Your task to perform on an android device: turn on showing notifications on the lock screen Image 0: 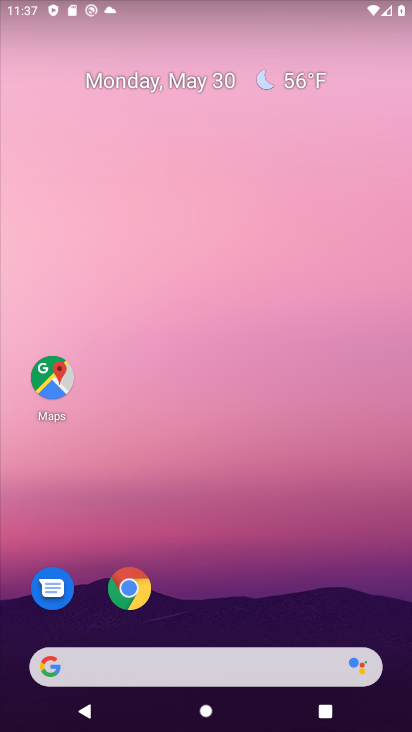
Step 0: drag from (216, 619) to (219, 209)
Your task to perform on an android device: turn on showing notifications on the lock screen Image 1: 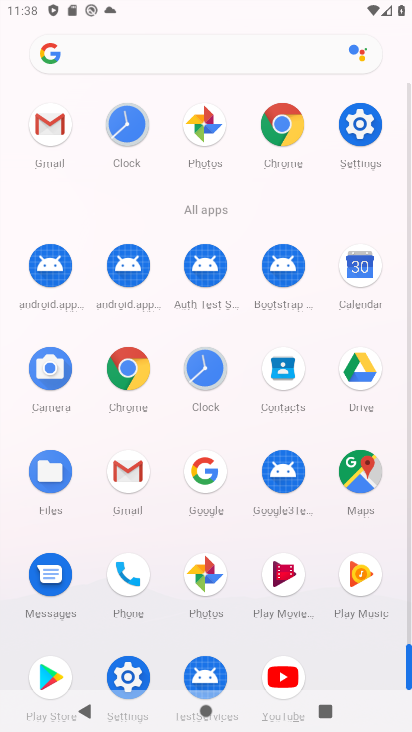
Step 1: click (365, 130)
Your task to perform on an android device: turn on showing notifications on the lock screen Image 2: 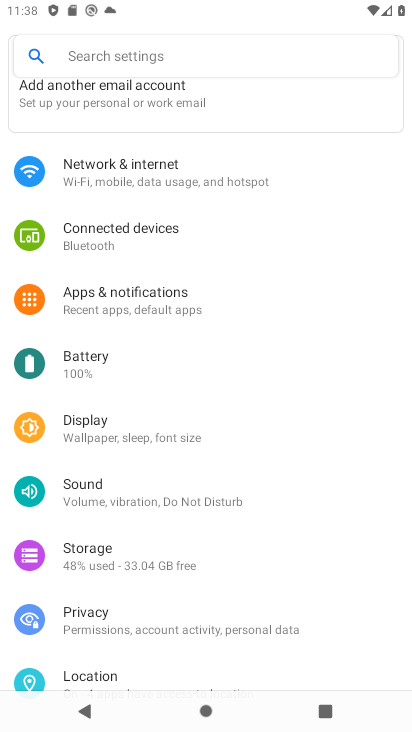
Step 2: click (150, 311)
Your task to perform on an android device: turn on showing notifications on the lock screen Image 3: 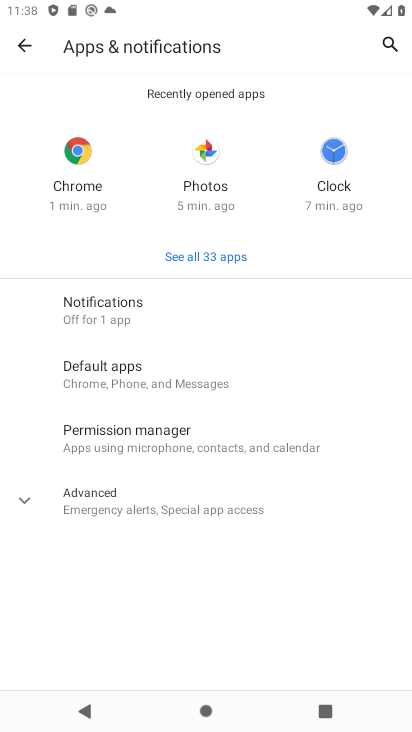
Step 3: click (150, 307)
Your task to perform on an android device: turn on showing notifications on the lock screen Image 4: 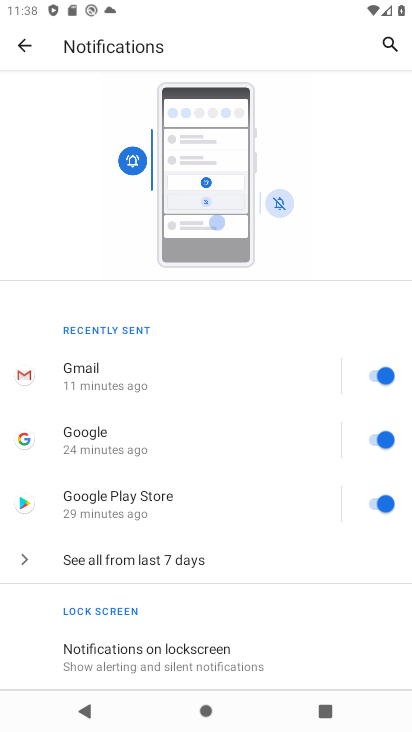
Step 4: click (173, 670)
Your task to perform on an android device: turn on showing notifications on the lock screen Image 5: 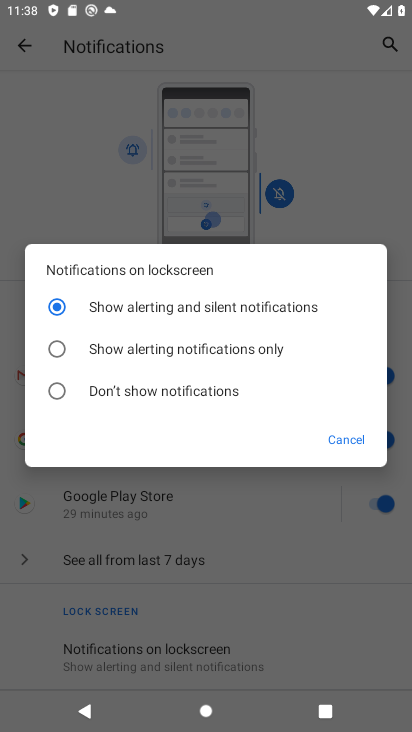
Step 5: task complete